Your task to perform on an android device: Add macbook air to the cart on walmart.com, then select checkout. Image 0: 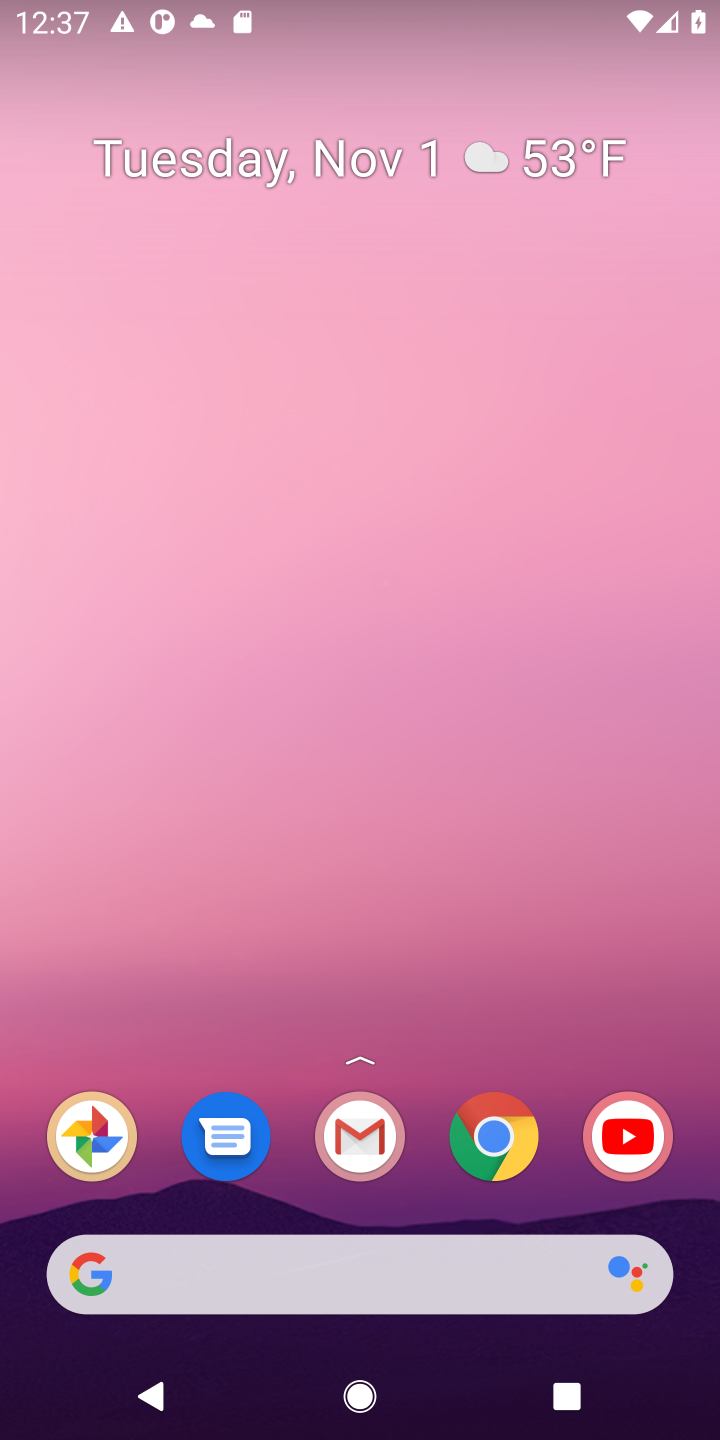
Step 0: press home button
Your task to perform on an android device: Add macbook air to the cart on walmart.com, then select checkout. Image 1: 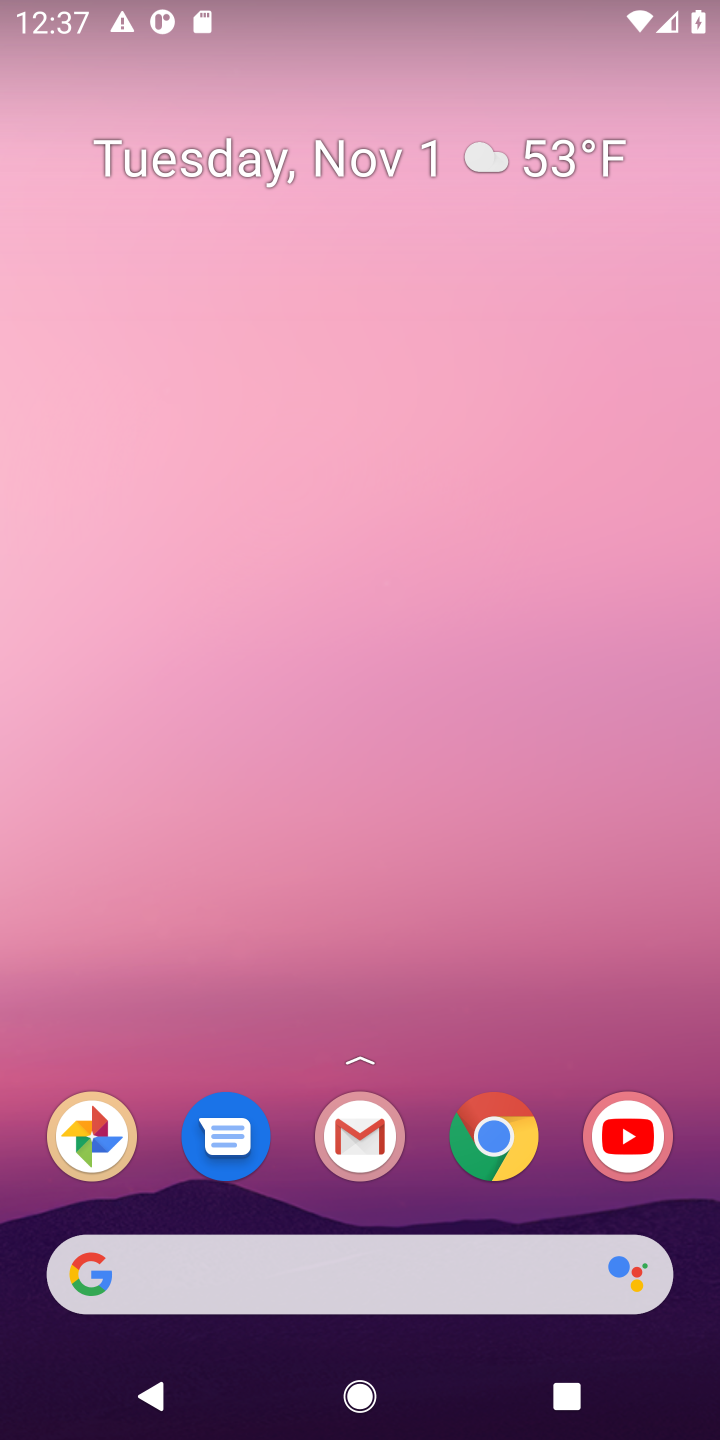
Step 1: click (132, 1262)
Your task to perform on an android device: Add macbook air to the cart on walmart.com, then select checkout. Image 2: 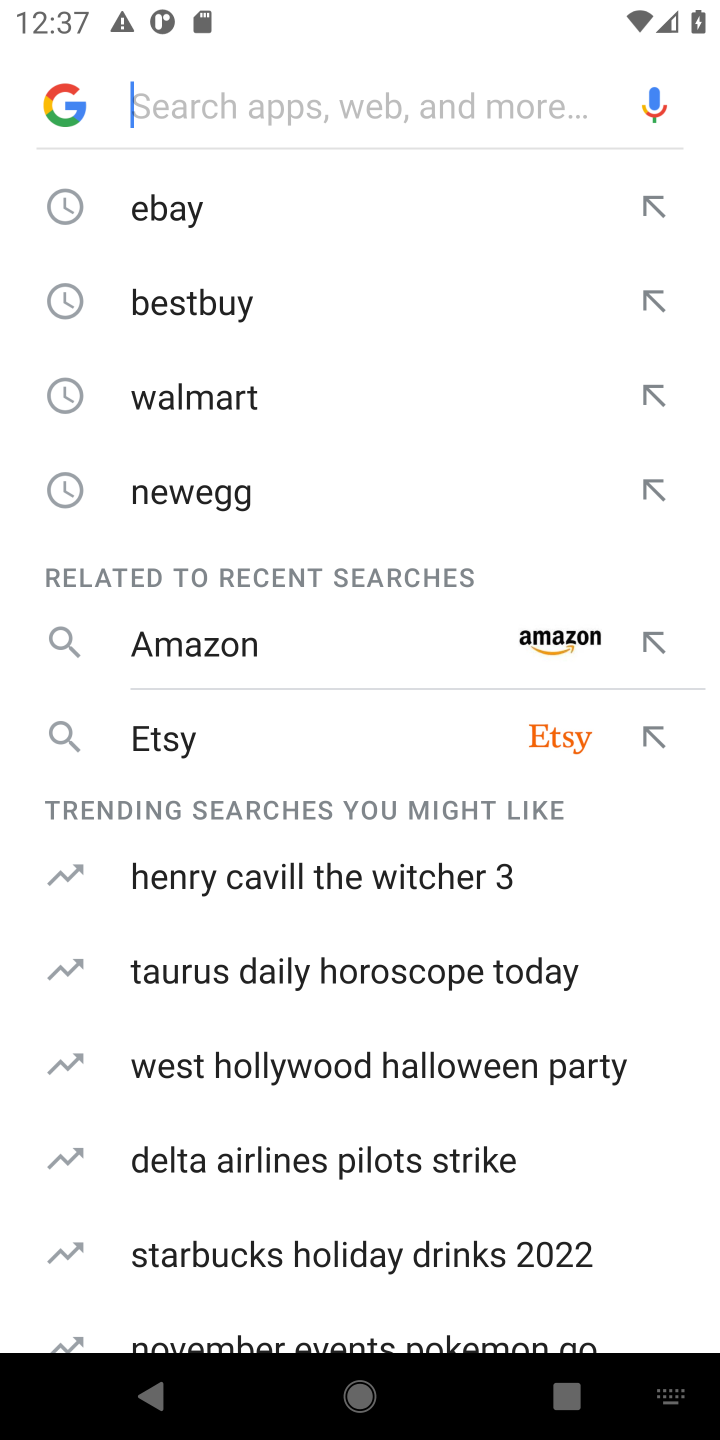
Step 2: type "walmart.com"
Your task to perform on an android device: Add macbook air to the cart on walmart.com, then select checkout. Image 3: 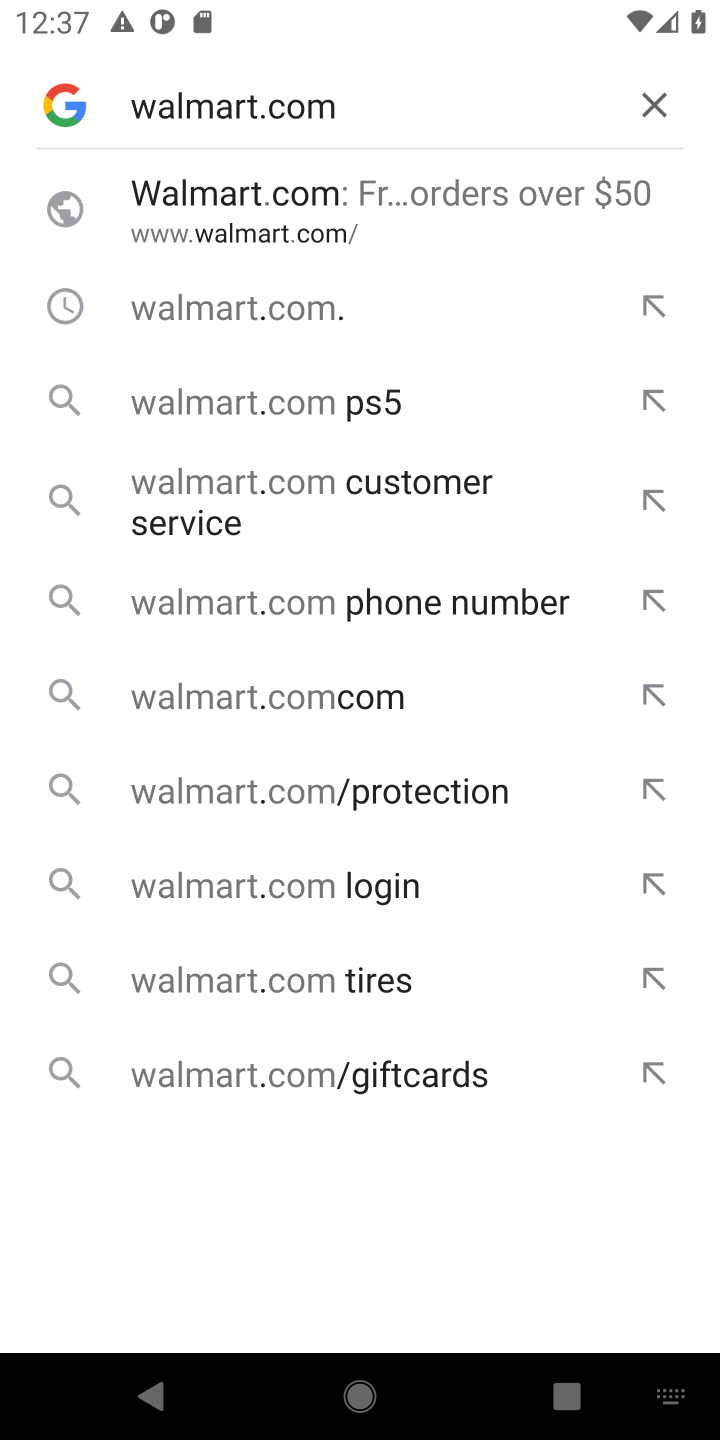
Step 3: press enter
Your task to perform on an android device: Add macbook air to the cart on walmart.com, then select checkout. Image 4: 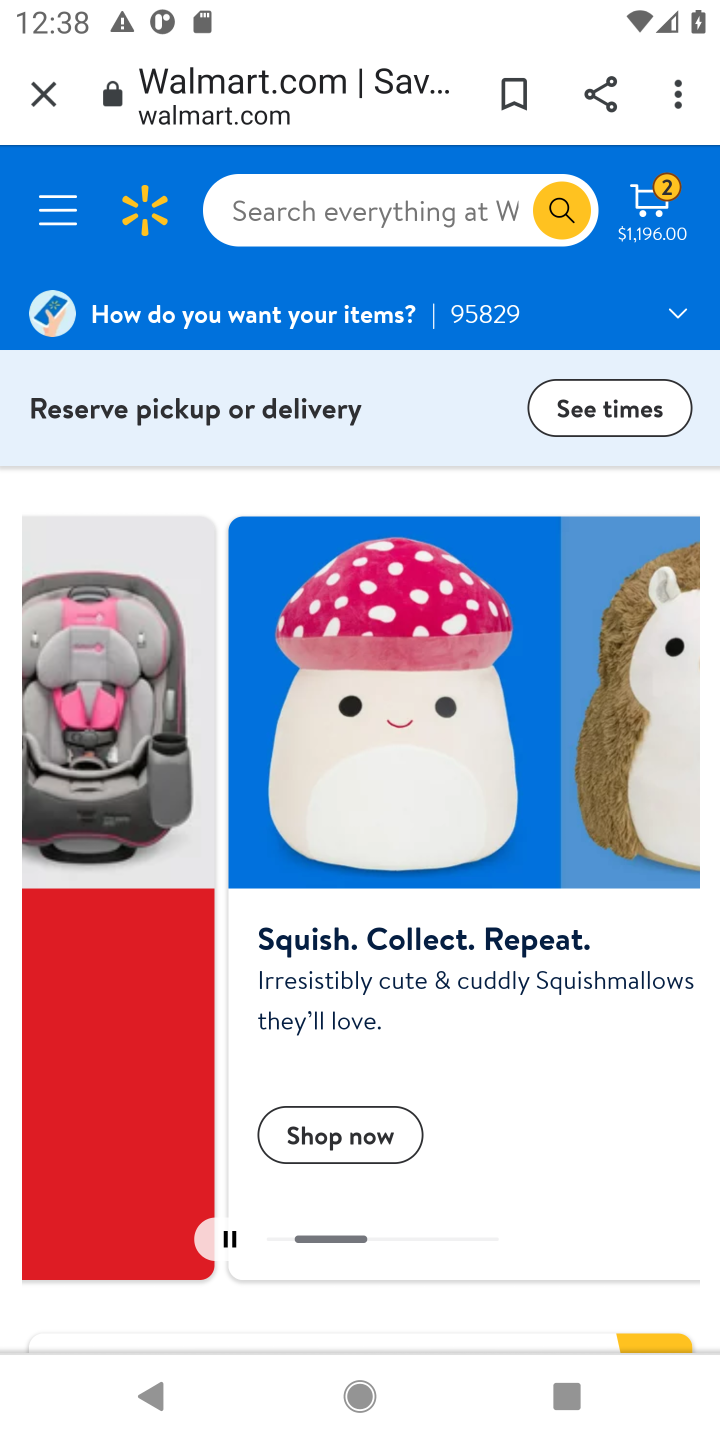
Step 4: click (286, 212)
Your task to perform on an android device: Add macbook air to the cart on walmart.com, then select checkout. Image 5: 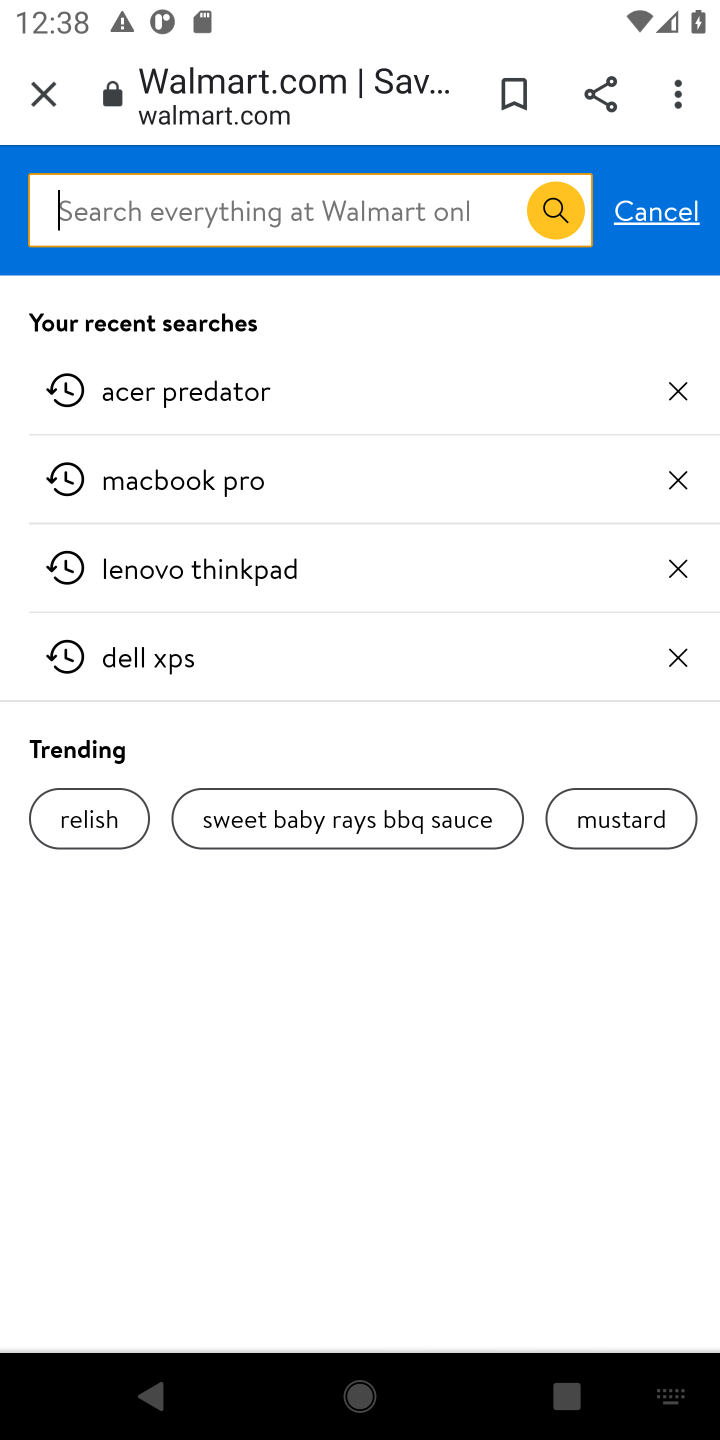
Step 5: press enter
Your task to perform on an android device: Add macbook air to the cart on walmart.com, then select checkout. Image 6: 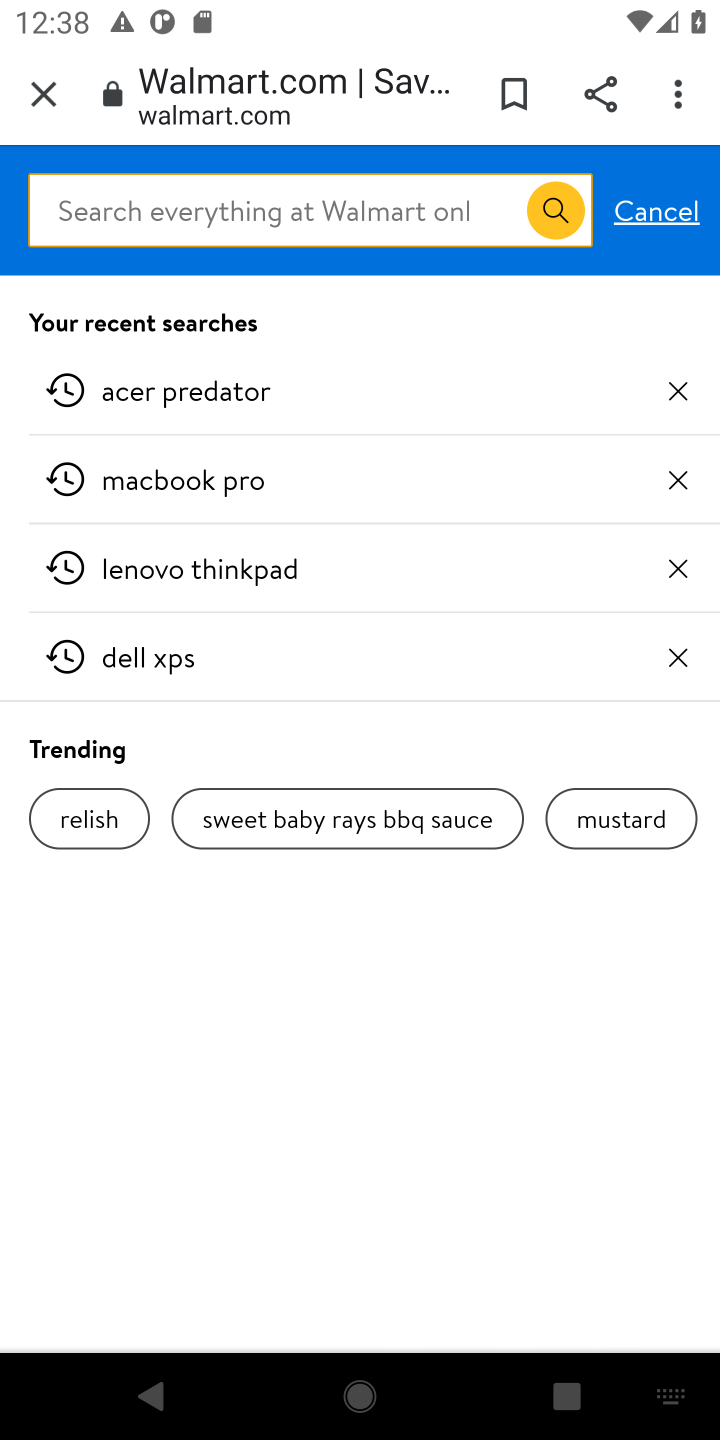
Step 6: type "macbook air"
Your task to perform on an android device: Add macbook air to the cart on walmart.com, then select checkout. Image 7: 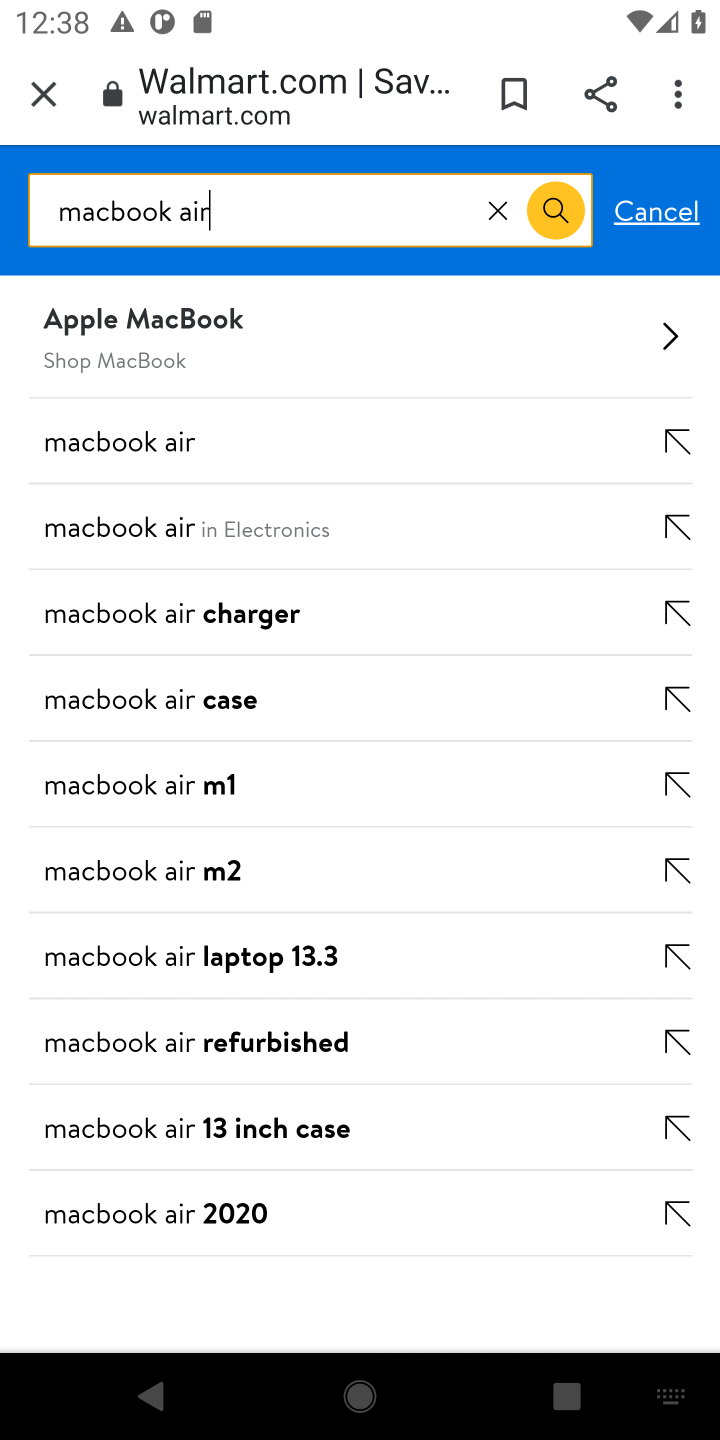
Step 7: press enter
Your task to perform on an android device: Add macbook air to the cart on walmart.com, then select checkout. Image 8: 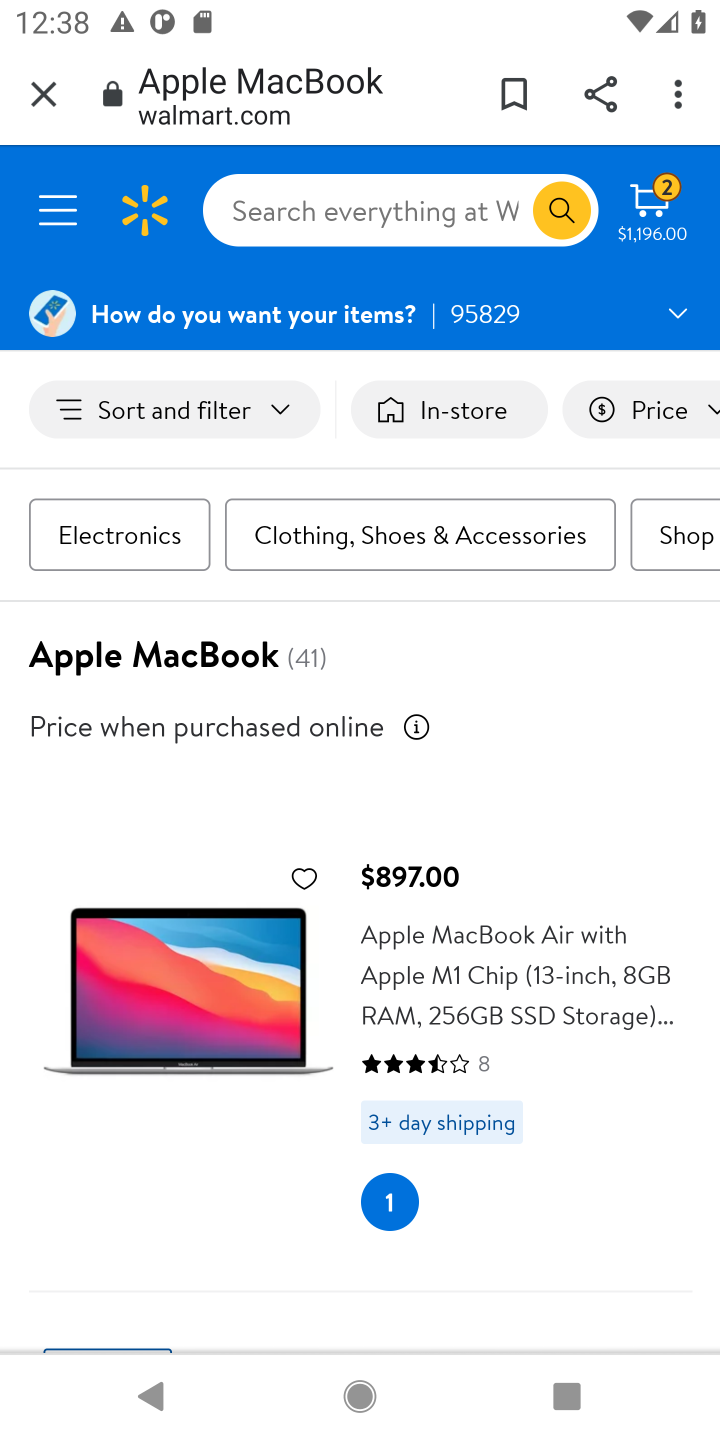
Step 8: drag from (291, 1119) to (307, 655)
Your task to perform on an android device: Add macbook air to the cart on walmart.com, then select checkout. Image 9: 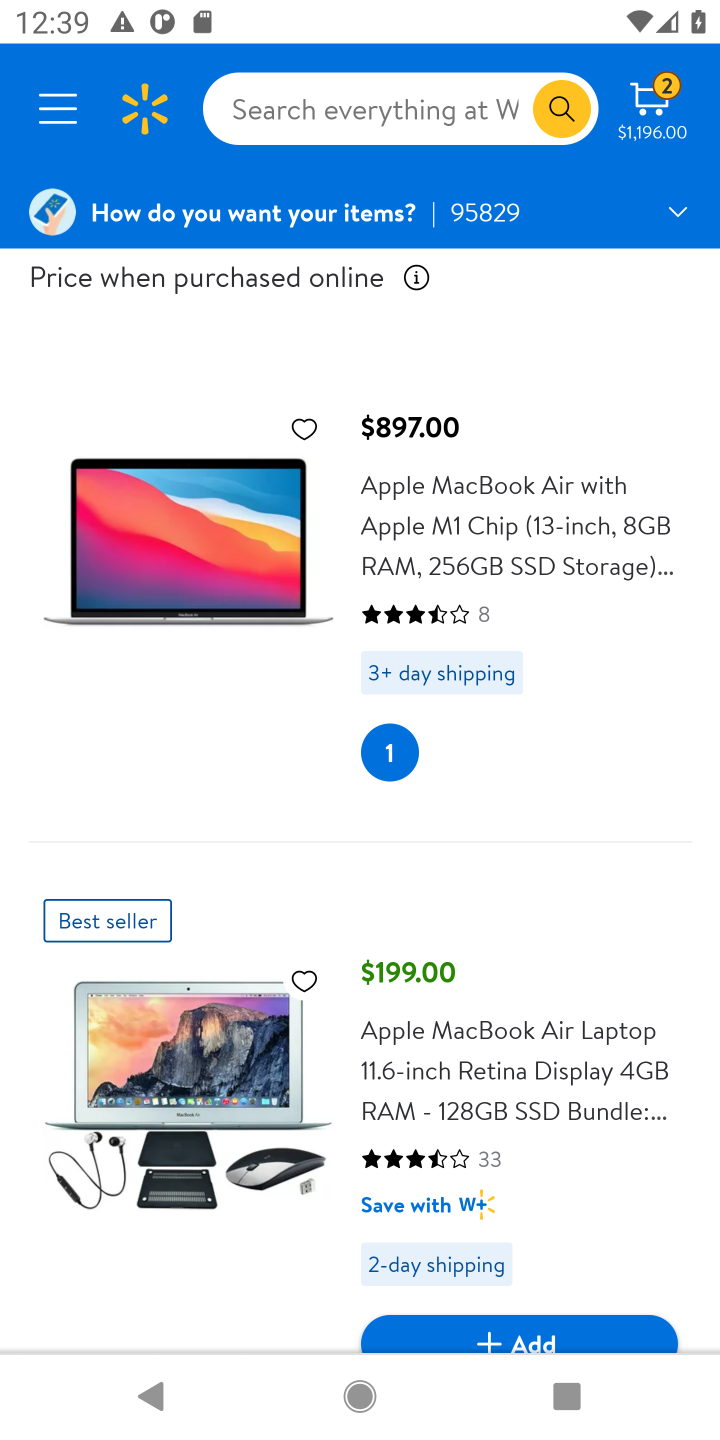
Step 9: drag from (446, 1023) to (504, 590)
Your task to perform on an android device: Add macbook air to the cart on walmart.com, then select checkout. Image 10: 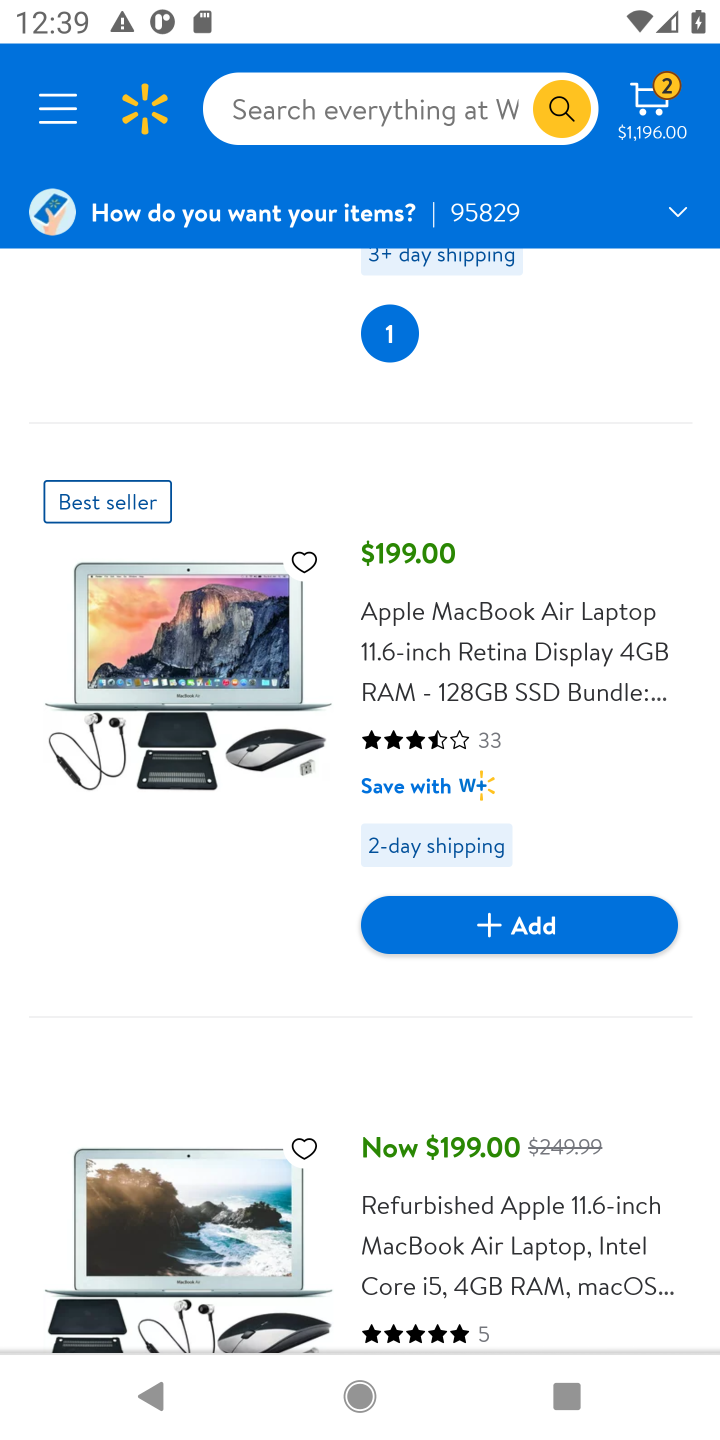
Step 10: click (584, 945)
Your task to perform on an android device: Add macbook air to the cart on walmart.com, then select checkout. Image 11: 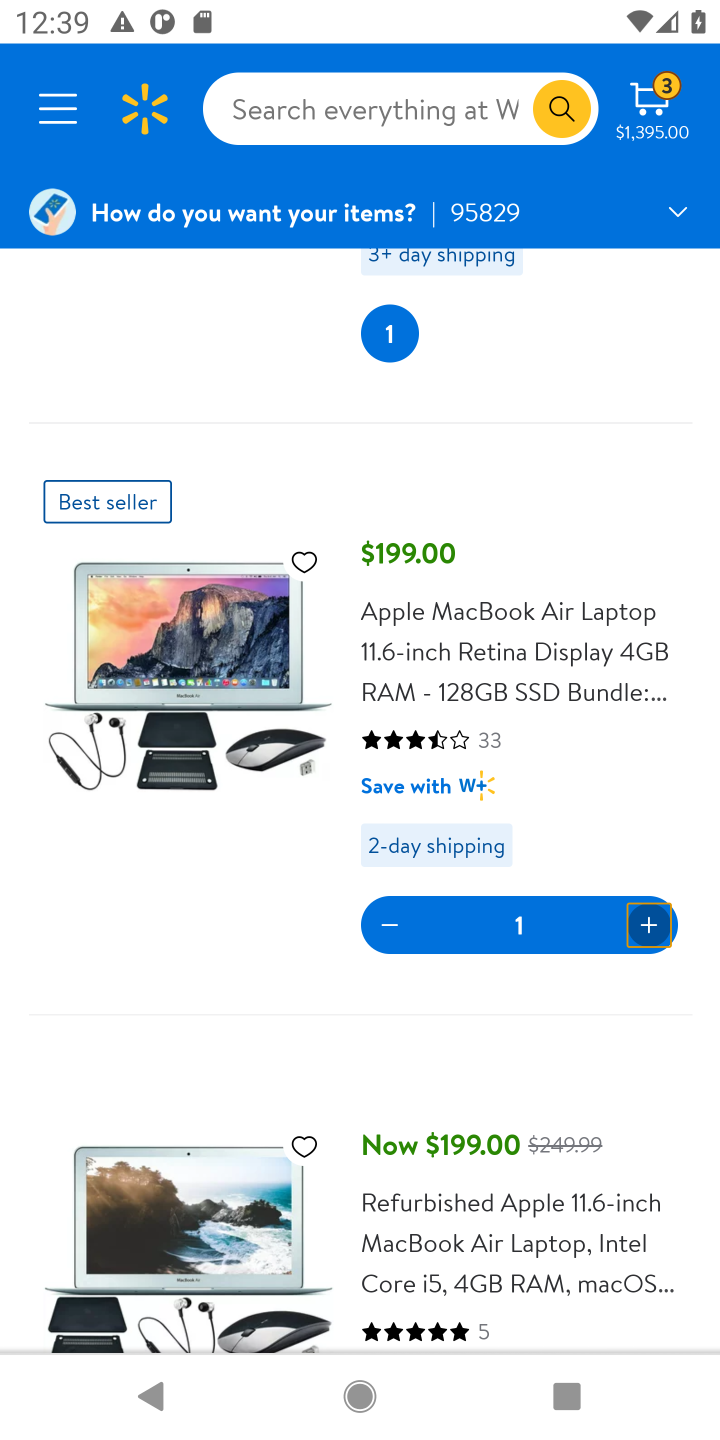
Step 11: click (665, 88)
Your task to perform on an android device: Add macbook air to the cart on walmart.com, then select checkout. Image 12: 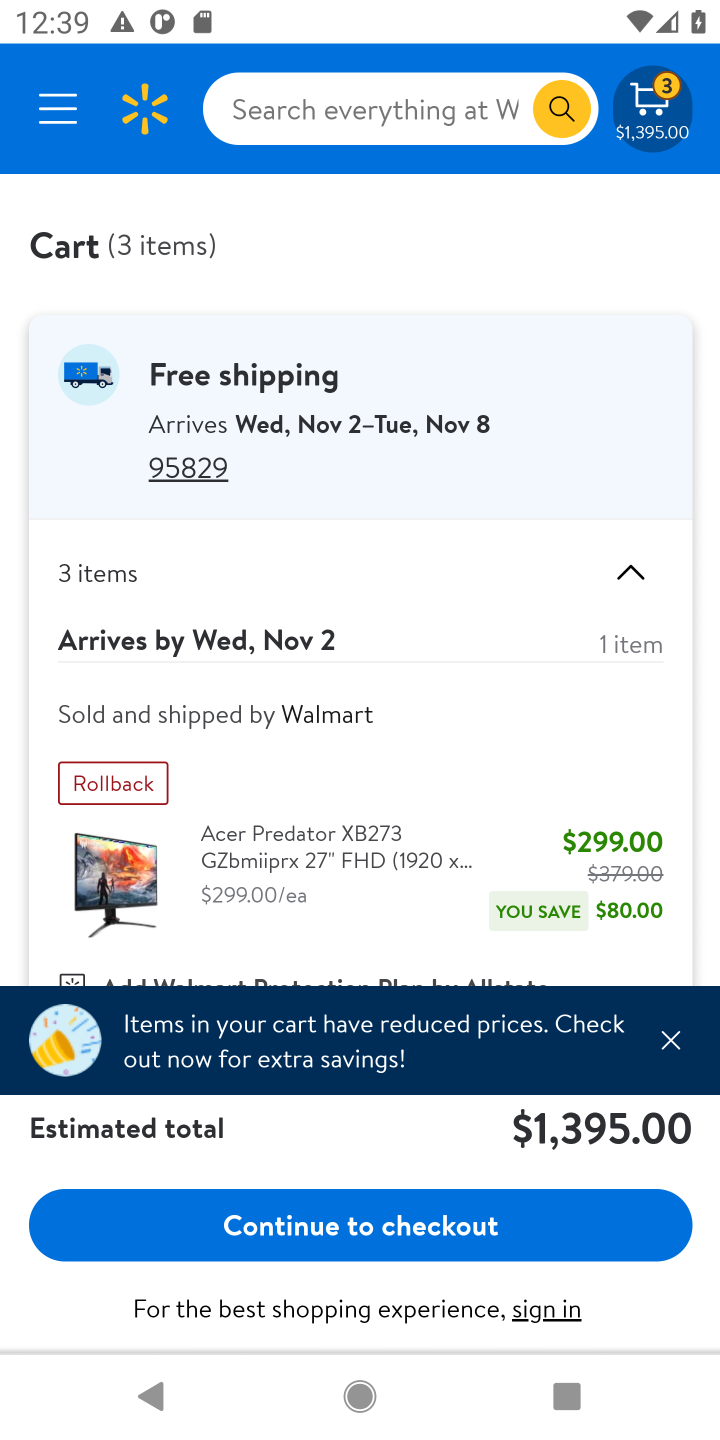
Step 12: click (676, 1038)
Your task to perform on an android device: Add macbook air to the cart on walmart.com, then select checkout. Image 13: 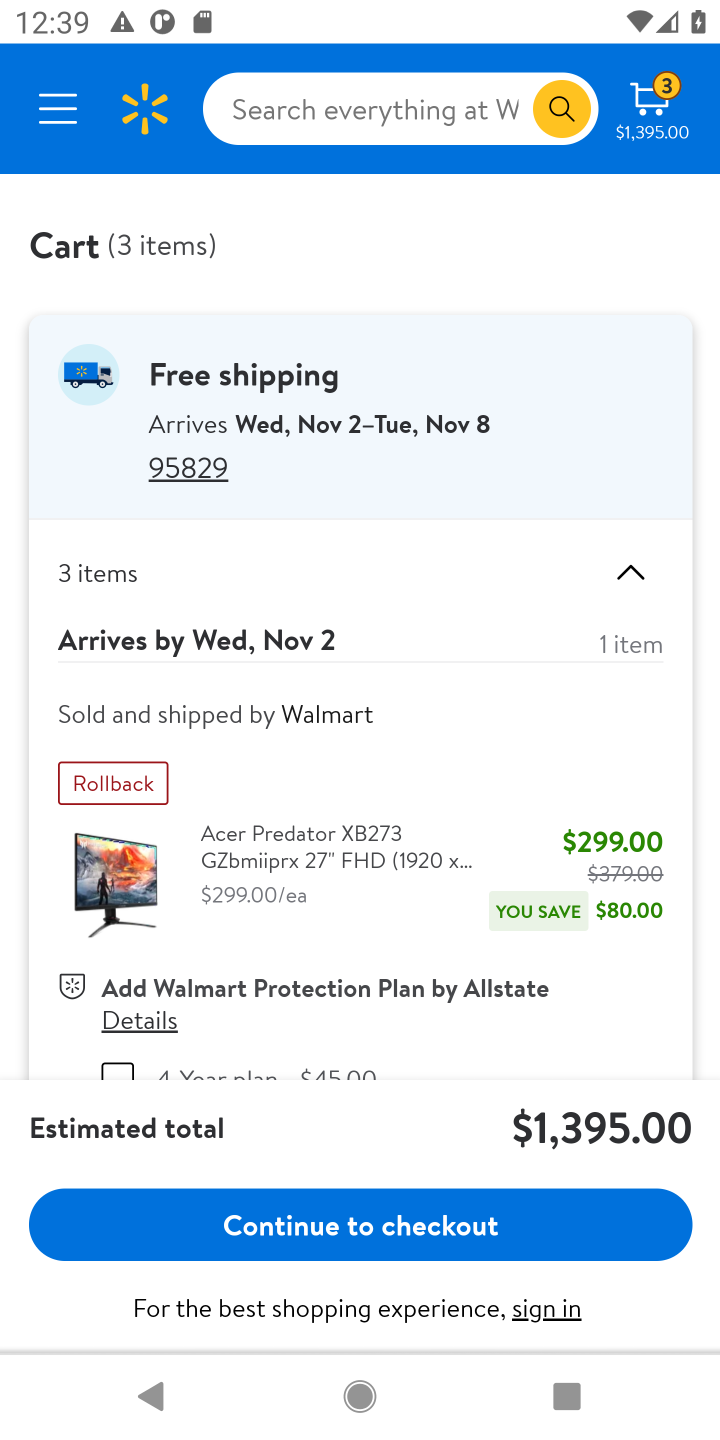
Step 13: click (295, 1228)
Your task to perform on an android device: Add macbook air to the cart on walmart.com, then select checkout. Image 14: 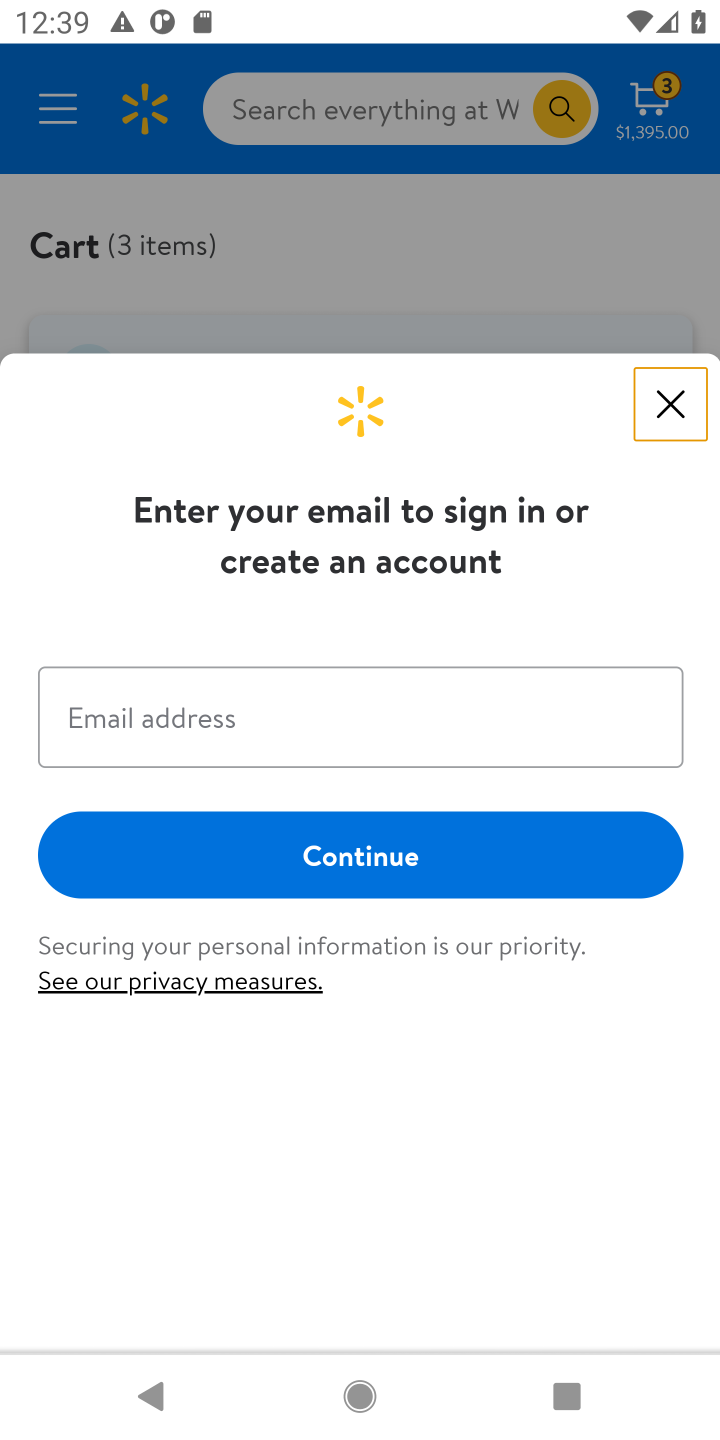
Step 14: task complete